Your task to perform on an android device: Search for hotels in London Image 0: 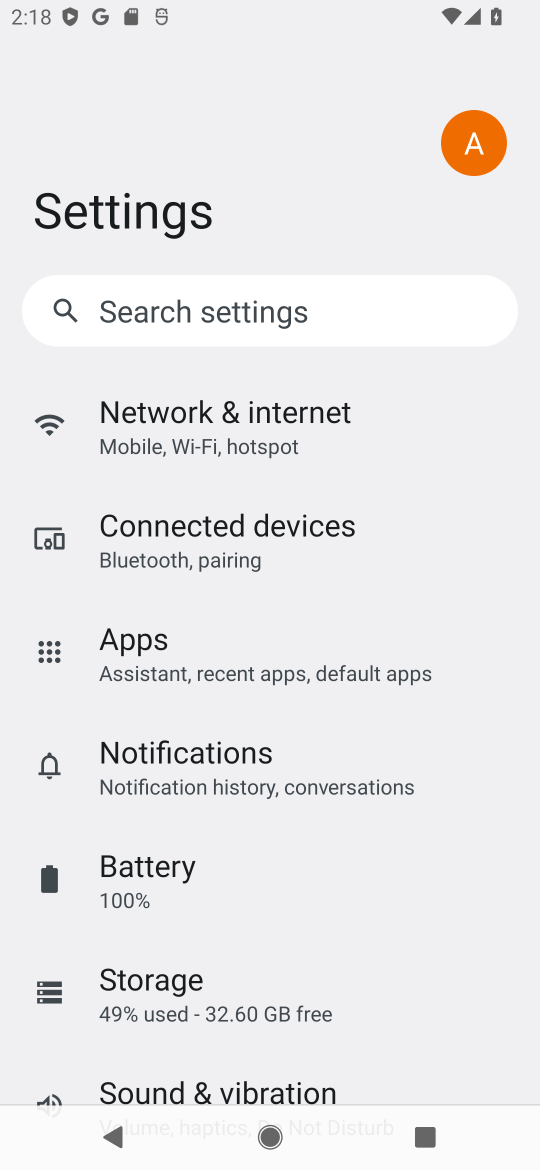
Step 0: press home button
Your task to perform on an android device: Search for hotels in London Image 1: 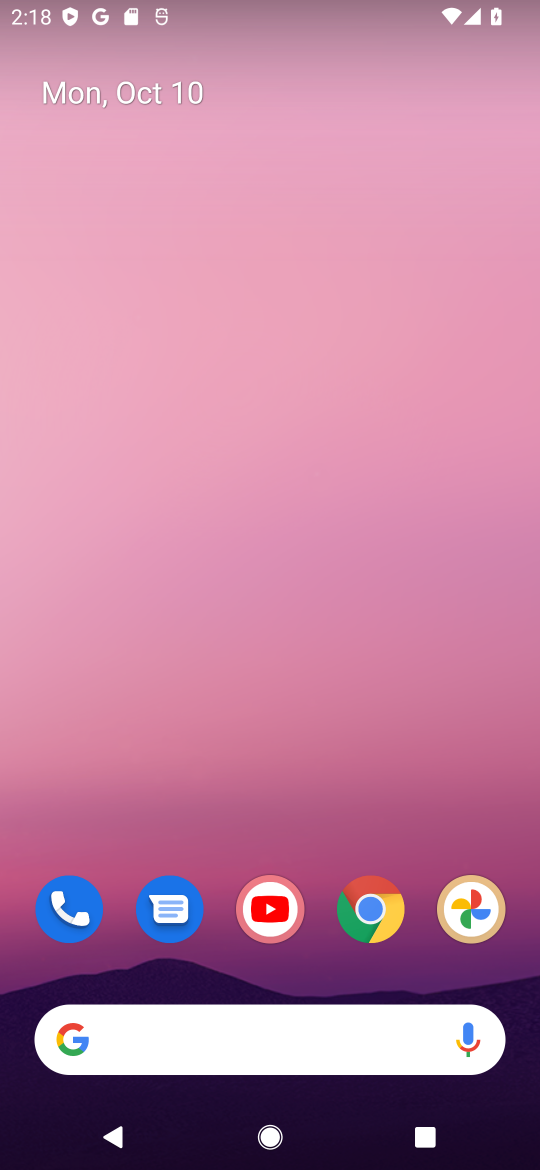
Step 1: click (364, 909)
Your task to perform on an android device: Search for hotels in London Image 2: 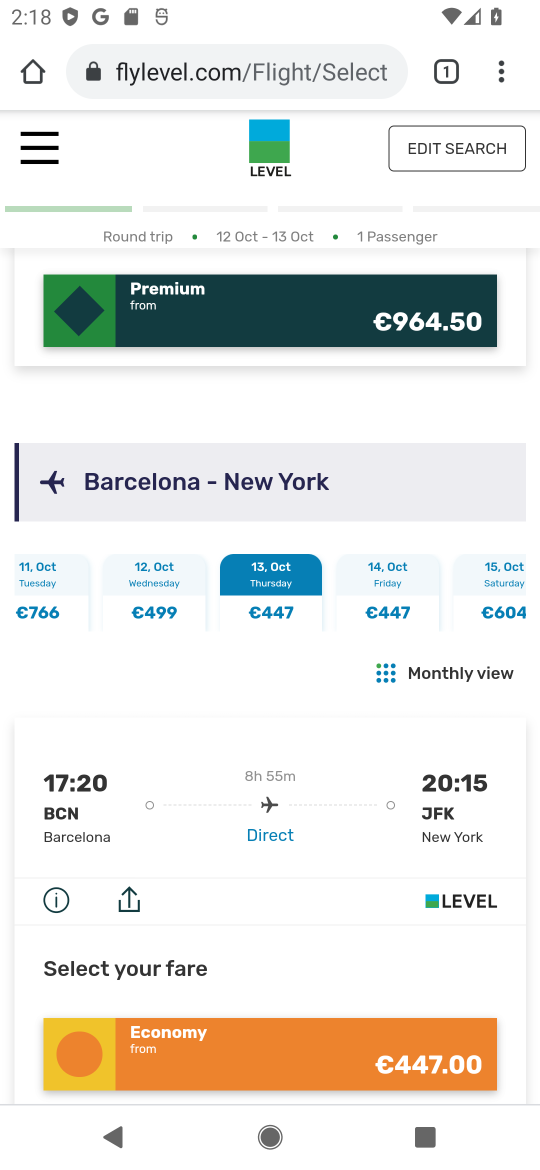
Step 2: click (207, 43)
Your task to perform on an android device: Search for hotels in London Image 3: 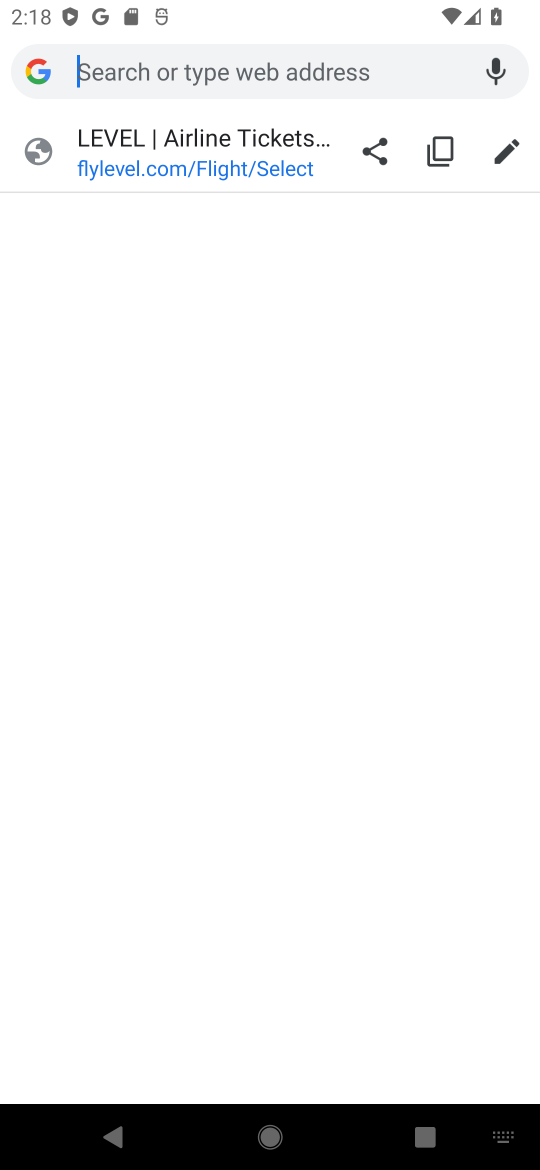
Step 3: type "hotels in London"
Your task to perform on an android device: Search for hotels in London Image 4: 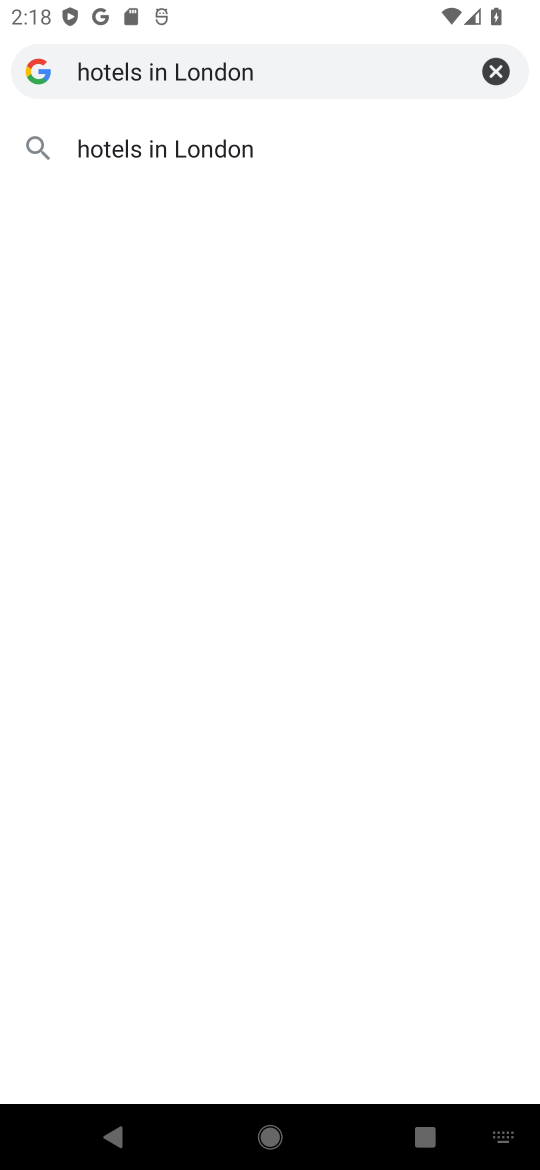
Step 4: click (181, 157)
Your task to perform on an android device: Search for hotels in London Image 5: 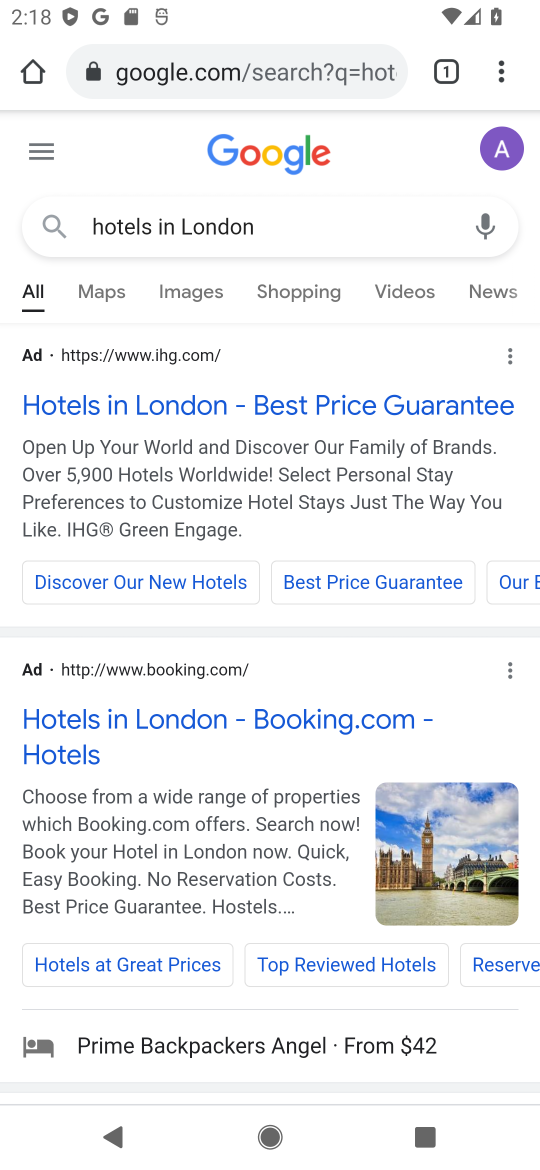
Step 5: click (80, 407)
Your task to perform on an android device: Search for hotels in London Image 6: 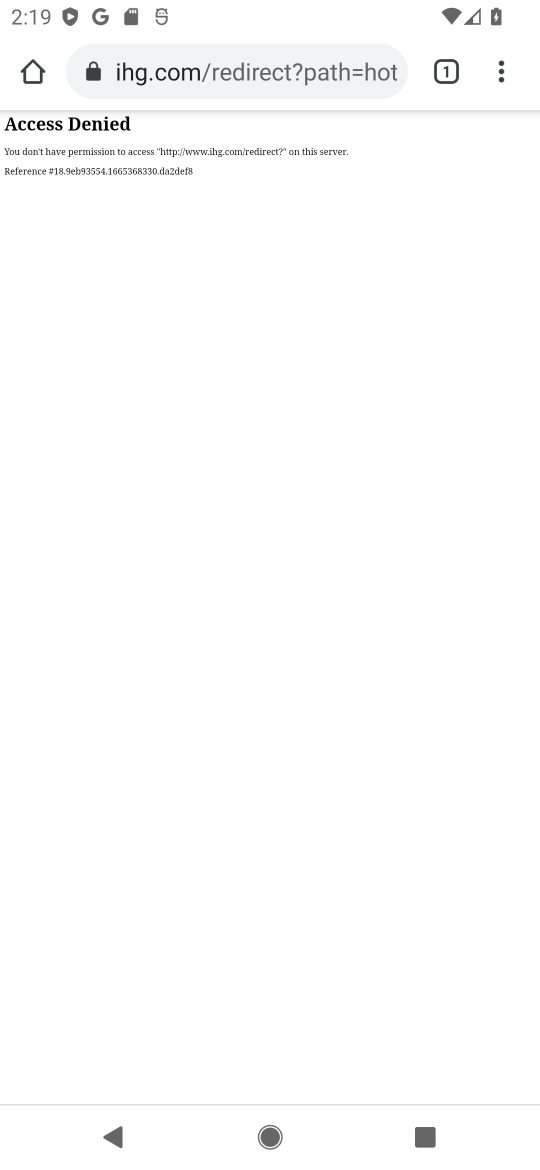
Step 6: press back button
Your task to perform on an android device: Search for hotels in London Image 7: 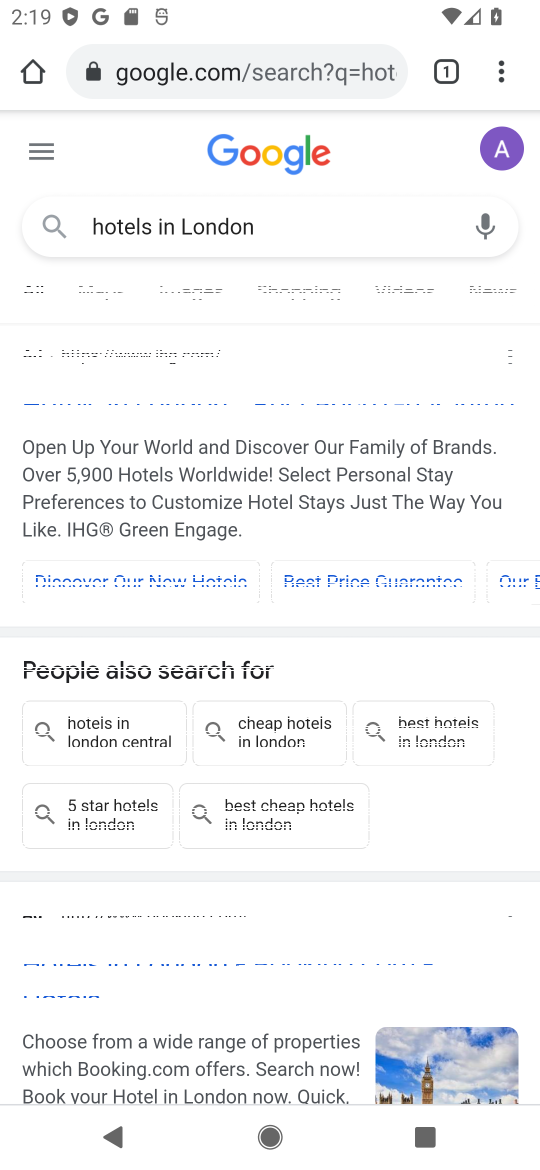
Step 7: drag from (403, 874) to (395, 309)
Your task to perform on an android device: Search for hotels in London Image 8: 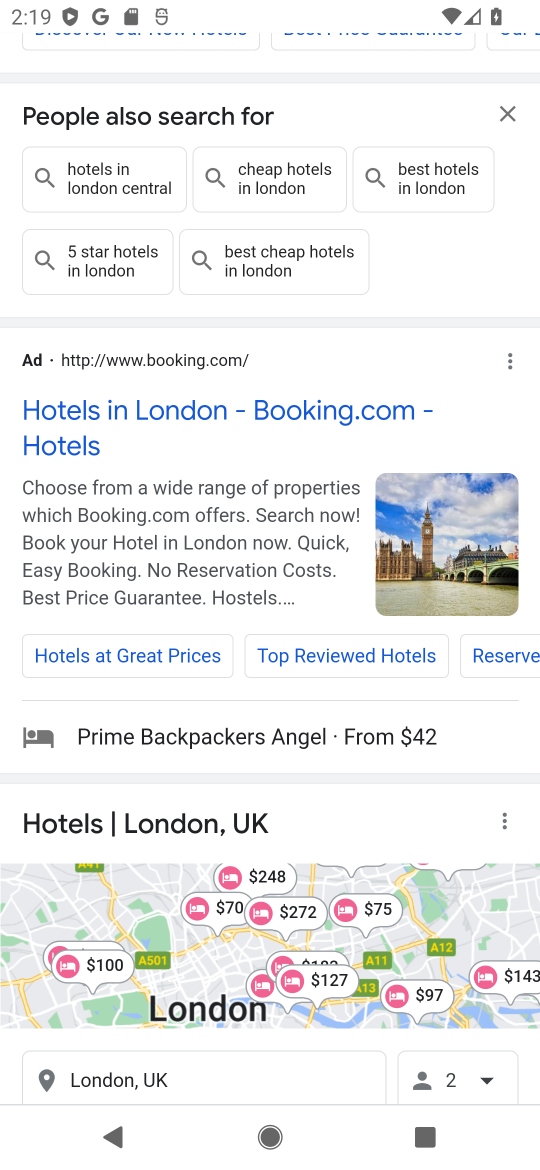
Step 8: click (111, 423)
Your task to perform on an android device: Search for hotels in London Image 9: 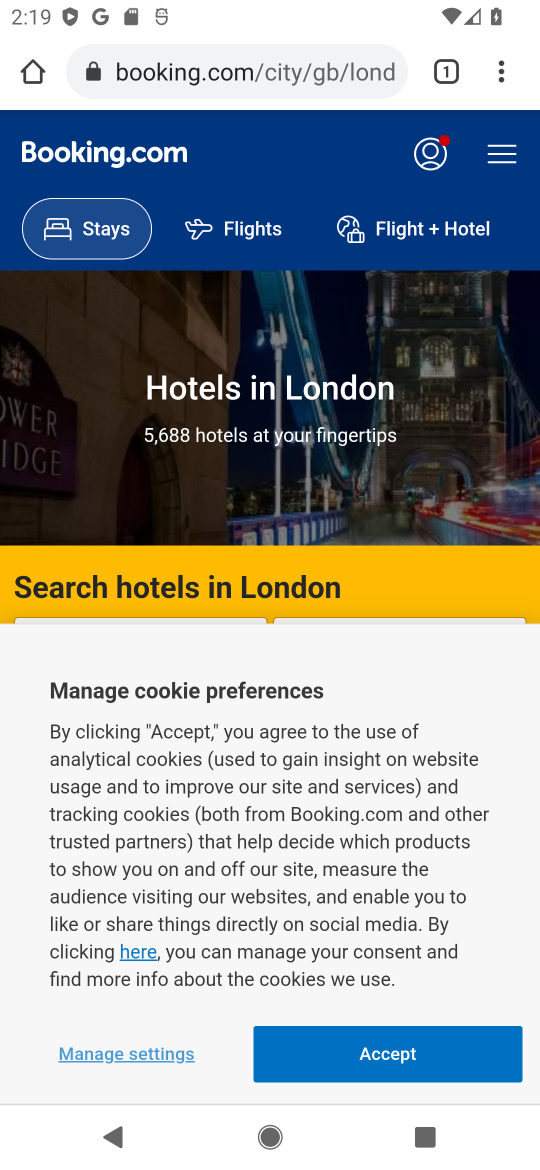
Step 9: click (395, 1054)
Your task to perform on an android device: Search for hotels in London Image 10: 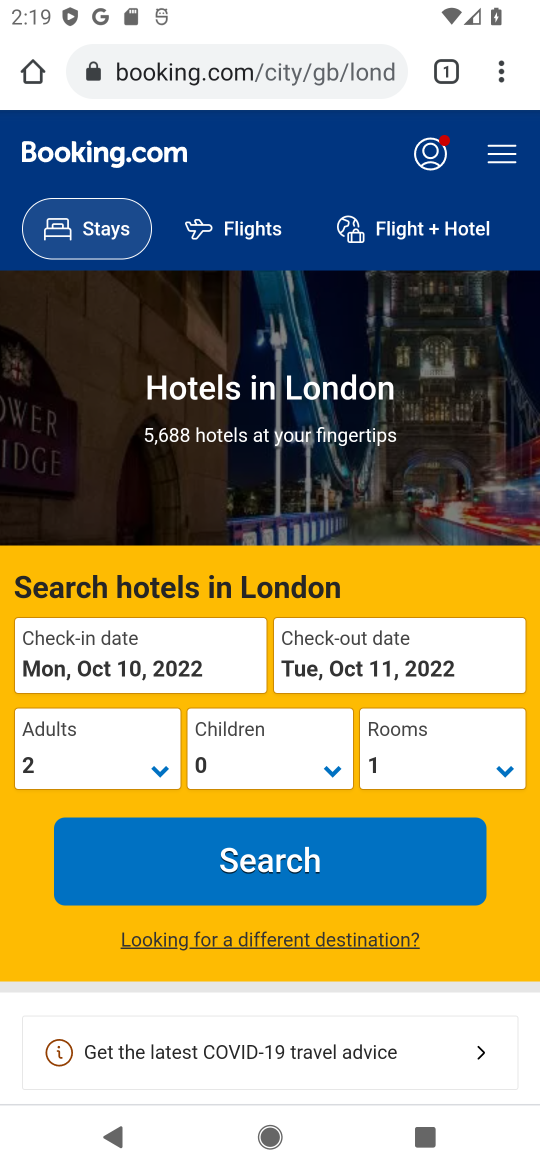
Step 10: drag from (476, 989) to (382, 291)
Your task to perform on an android device: Search for hotels in London Image 11: 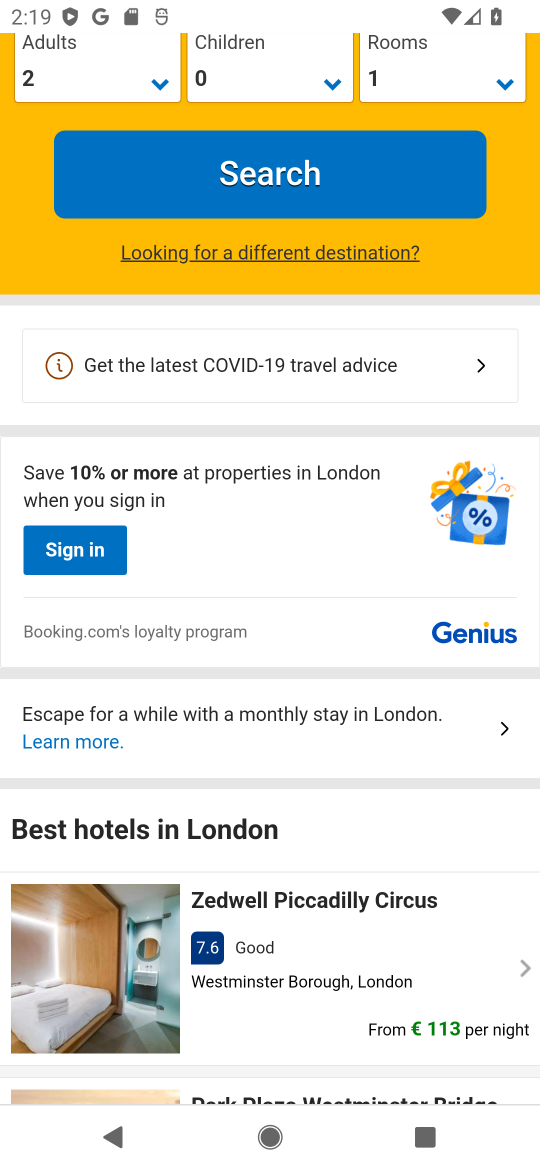
Step 11: click (242, 173)
Your task to perform on an android device: Search for hotels in London Image 12: 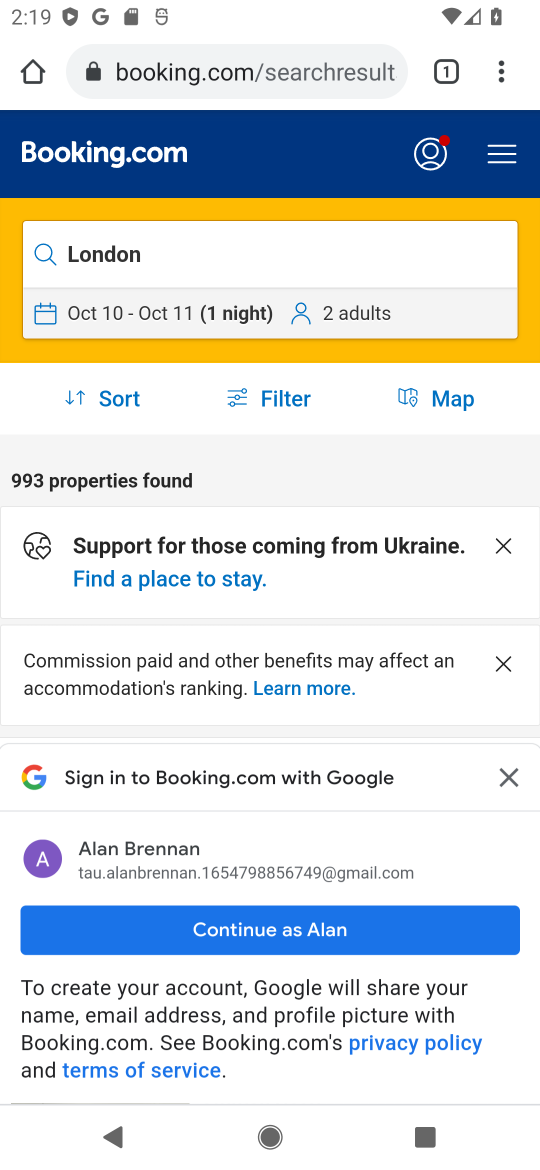
Step 12: click (506, 773)
Your task to perform on an android device: Search for hotels in London Image 13: 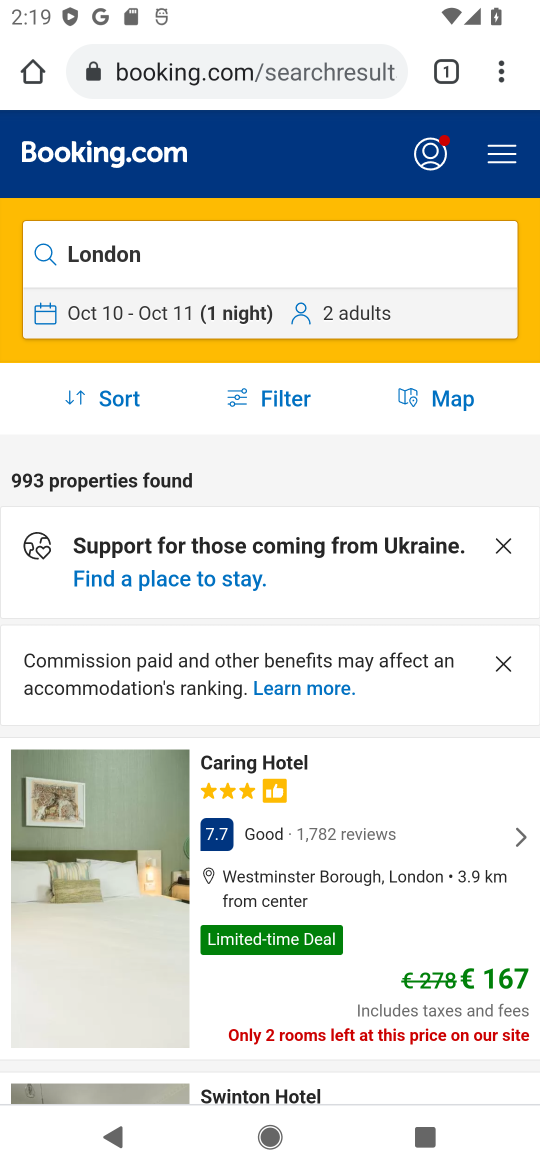
Step 13: task complete